Your task to perform on an android device: clear all cookies in the chrome app Image 0: 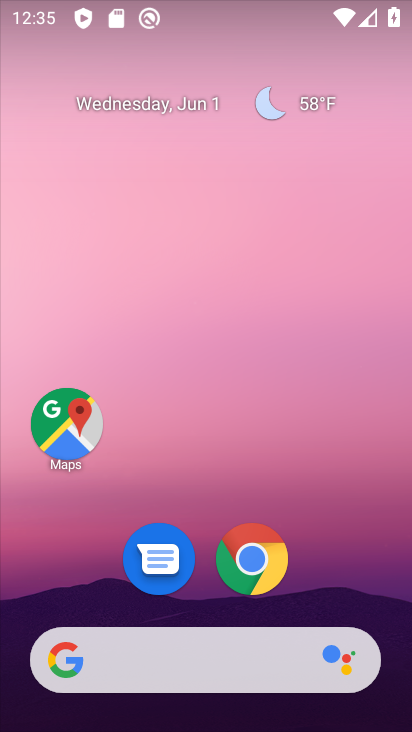
Step 0: click (251, 562)
Your task to perform on an android device: clear all cookies in the chrome app Image 1: 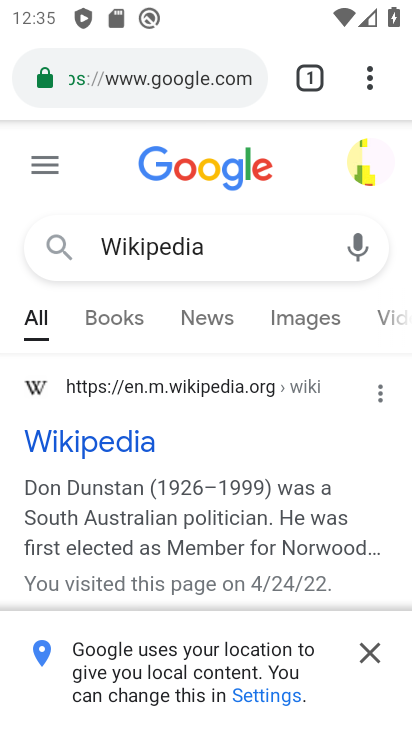
Step 1: click (370, 70)
Your task to perform on an android device: clear all cookies in the chrome app Image 2: 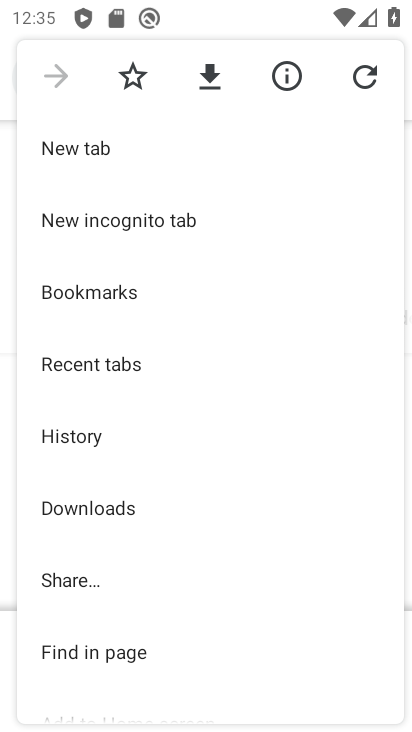
Step 2: click (78, 430)
Your task to perform on an android device: clear all cookies in the chrome app Image 3: 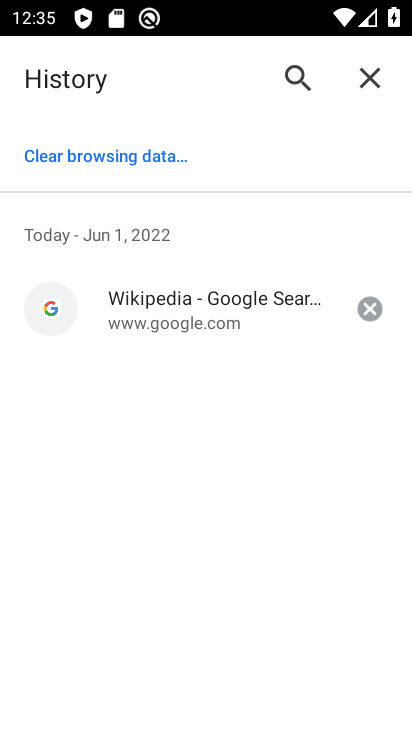
Step 3: click (144, 160)
Your task to perform on an android device: clear all cookies in the chrome app Image 4: 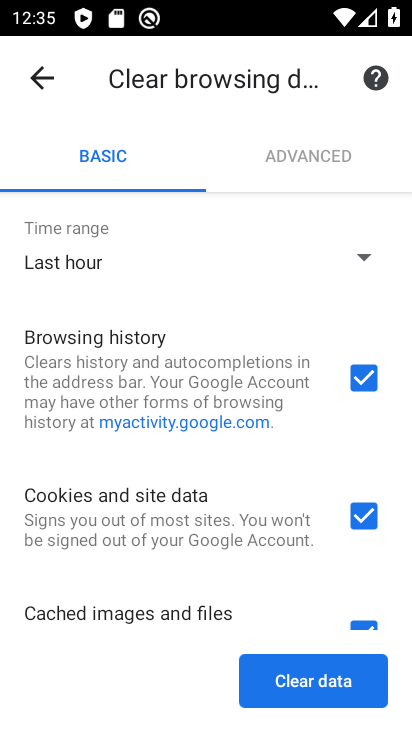
Step 4: click (362, 612)
Your task to perform on an android device: clear all cookies in the chrome app Image 5: 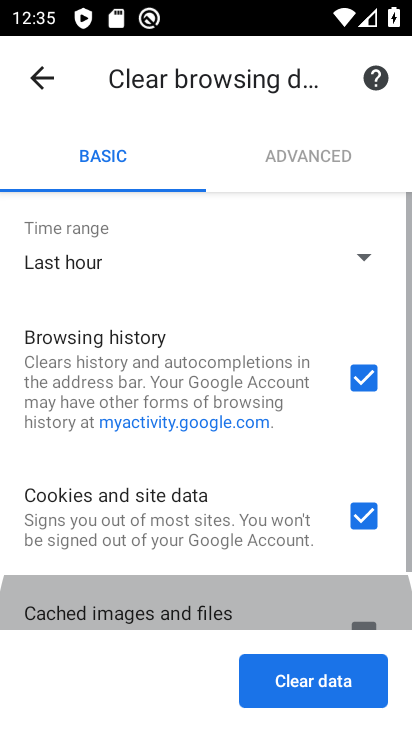
Step 5: click (361, 375)
Your task to perform on an android device: clear all cookies in the chrome app Image 6: 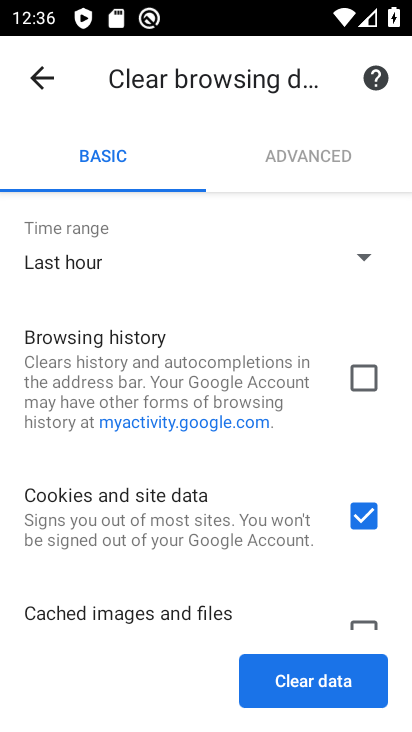
Step 6: click (316, 678)
Your task to perform on an android device: clear all cookies in the chrome app Image 7: 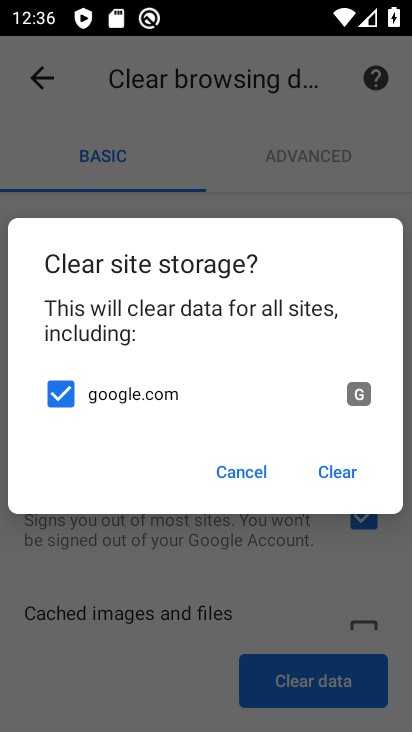
Step 7: click (328, 469)
Your task to perform on an android device: clear all cookies in the chrome app Image 8: 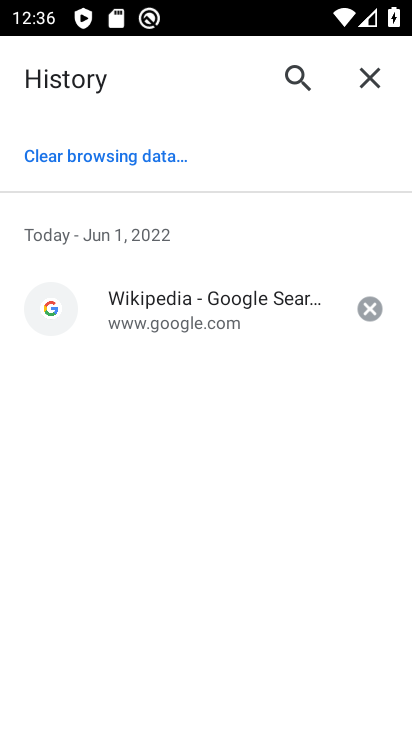
Step 8: task complete